Your task to perform on an android device: add a label to a message in the gmail app Image 0: 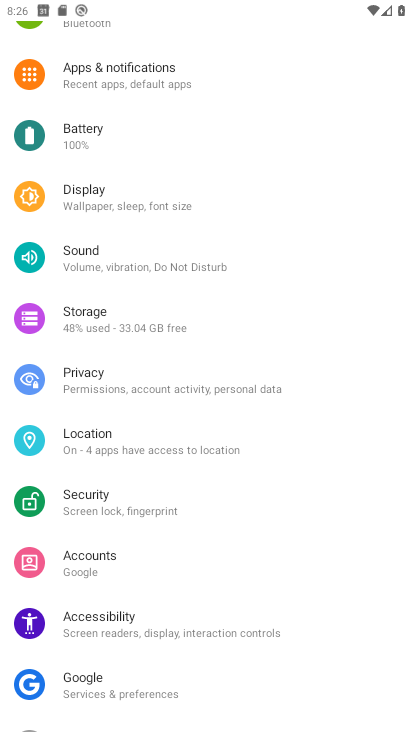
Step 0: press home button
Your task to perform on an android device: add a label to a message in the gmail app Image 1: 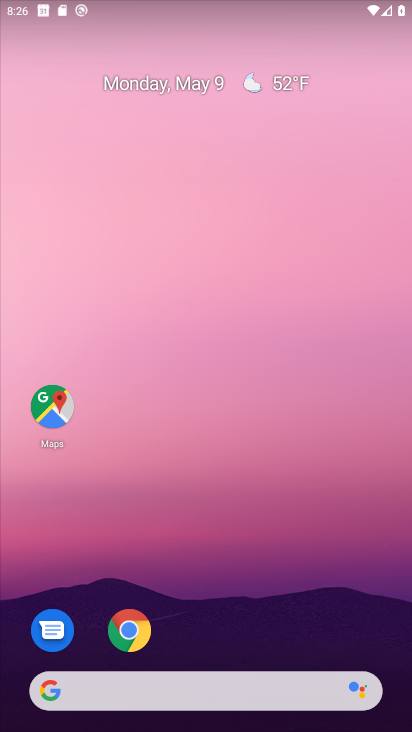
Step 1: drag from (217, 625) to (280, 4)
Your task to perform on an android device: add a label to a message in the gmail app Image 2: 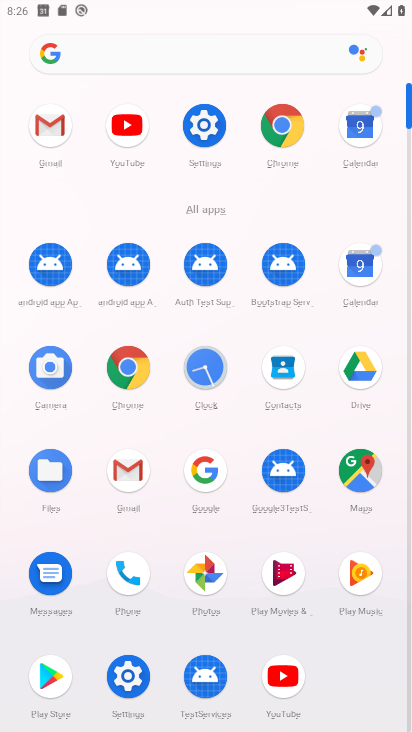
Step 2: click (128, 468)
Your task to perform on an android device: add a label to a message in the gmail app Image 3: 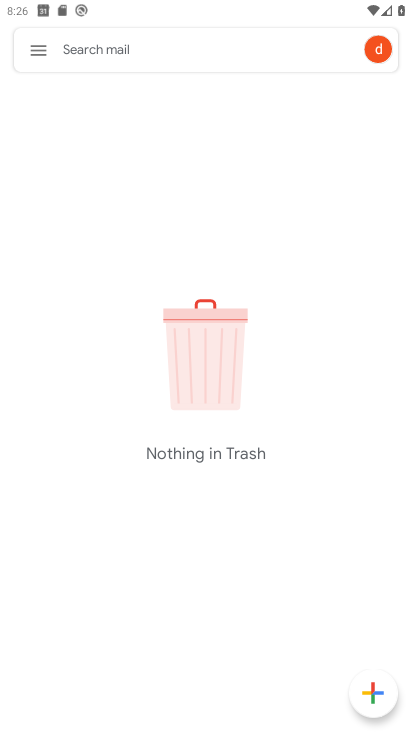
Step 3: click (41, 52)
Your task to perform on an android device: add a label to a message in the gmail app Image 4: 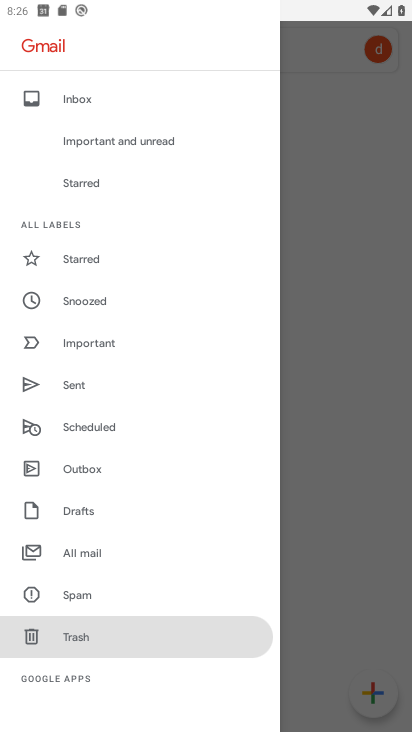
Step 4: click (99, 560)
Your task to perform on an android device: add a label to a message in the gmail app Image 5: 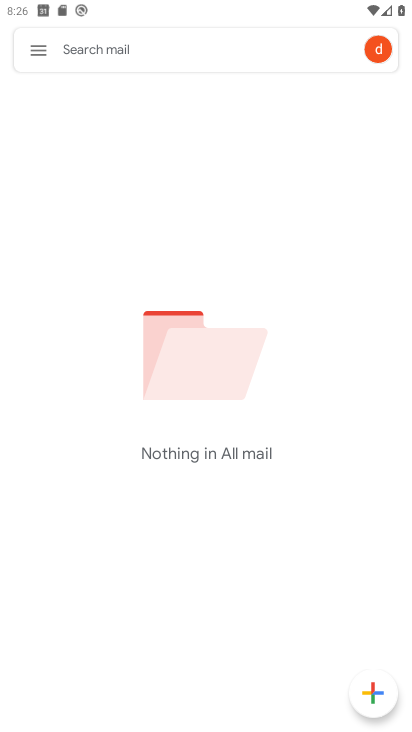
Step 5: task complete